Your task to perform on an android device: move an email to a new category in the gmail app Image 0: 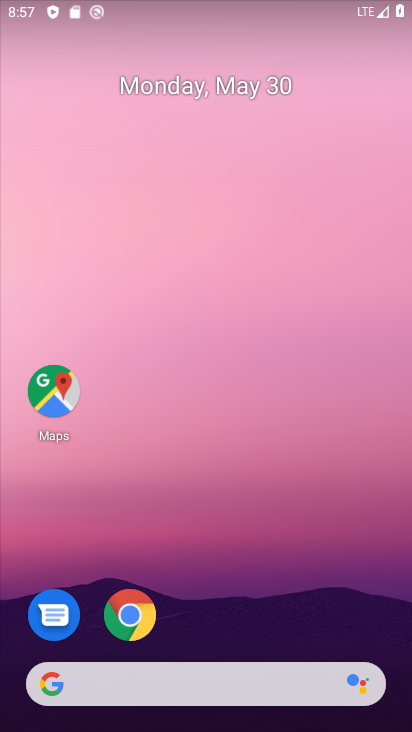
Step 0: drag from (138, 726) to (316, 49)
Your task to perform on an android device: move an email to a new category in the gmail app Image 1: 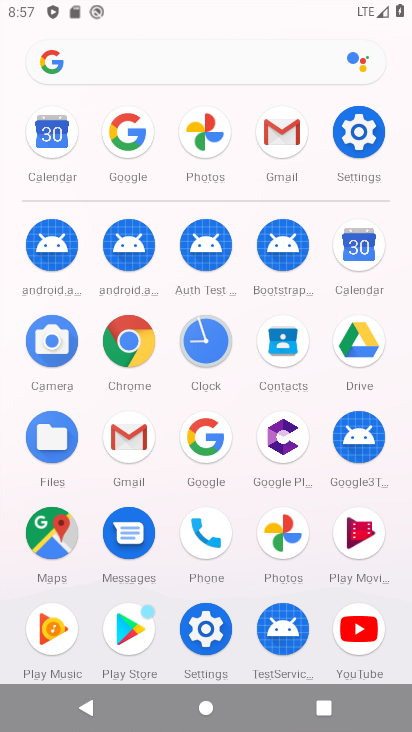
Step 1: click (125, 438)
Your task to perform on an android device: move an email to a new category in the gmail app Image 2: 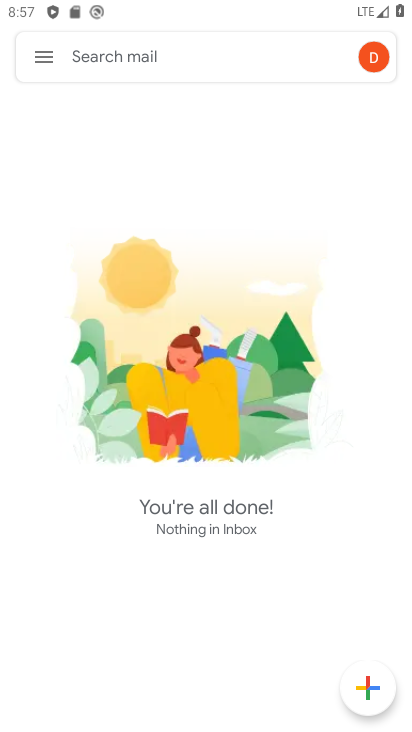
Step 2: click (52, 51)
Your task to perform on an android device: move an email to a new category in the gmail app Image 3: 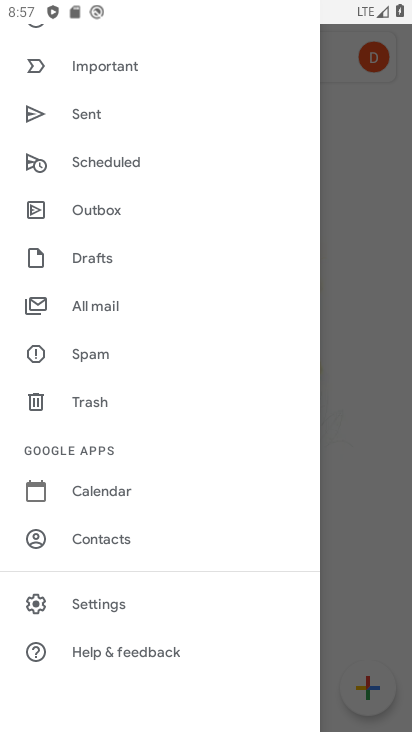
Step 3: click (116, 308)
Your task to perform on an android device: move an email to a new category in the gmail app Image 4: 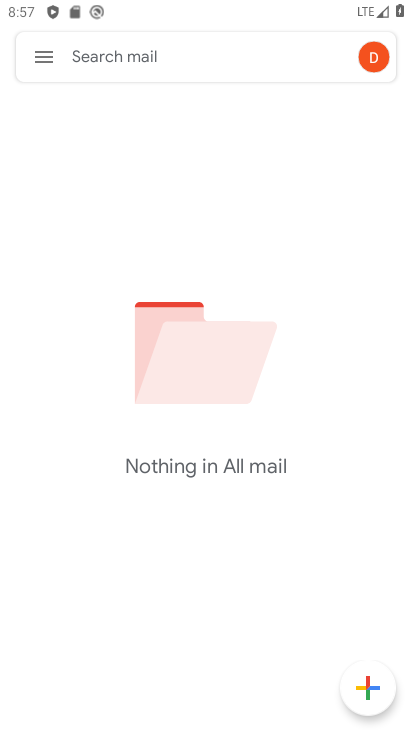
Step 4: click (54, 45)
Your task to perform on an android device: move an email to a new category in the gmail app Image 5: 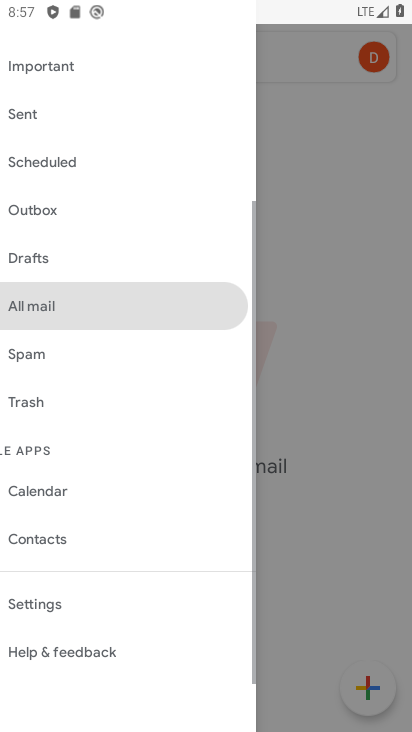
Step 5: click (43, 55)
Your task to perform on an android device: move an email to a new category in the gmail app Image 6: 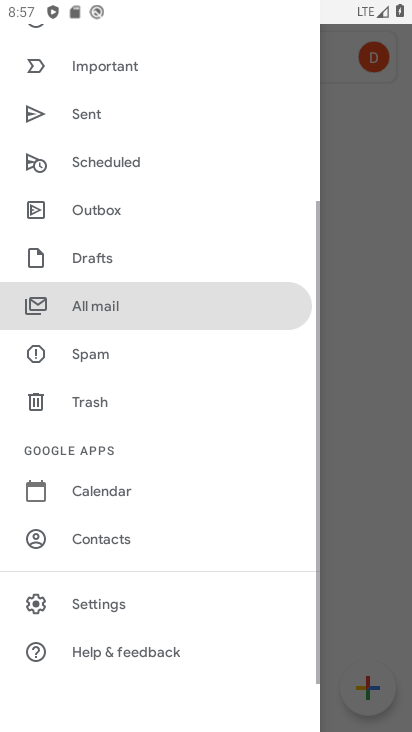
Step 6: drag from (129, 145) to (71, 485)
Your task to perform on an android device: move an email to a new category in the gmail app Image 7: 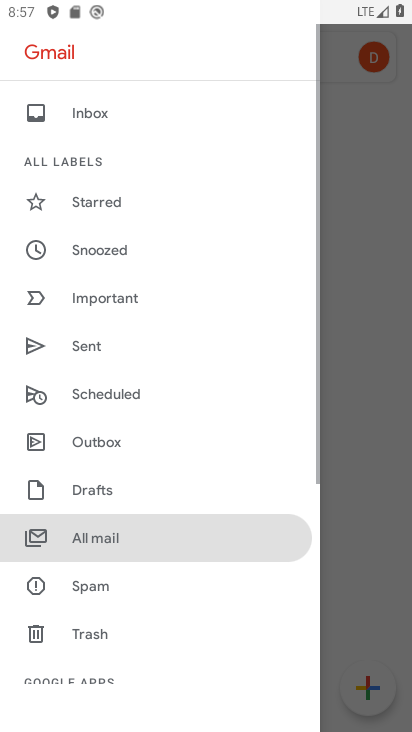
Step 7: click (109, 112)
Your task to perform on an android device: move an email to a new category in the gmail app Image 8: 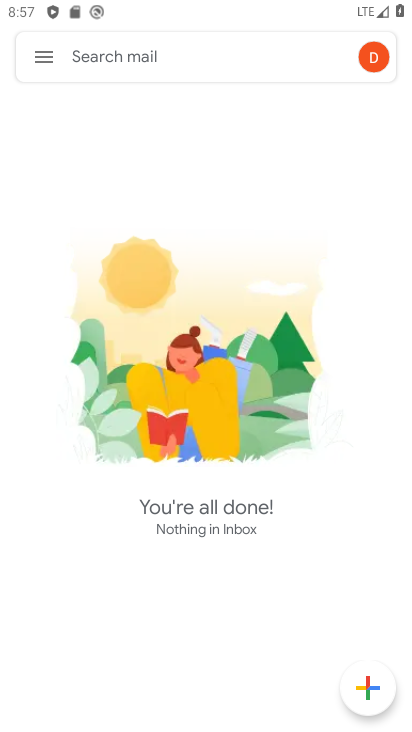
Step 8: task complete